Your task to perform on an android device: turn off javascript in the chrome app Image 0: 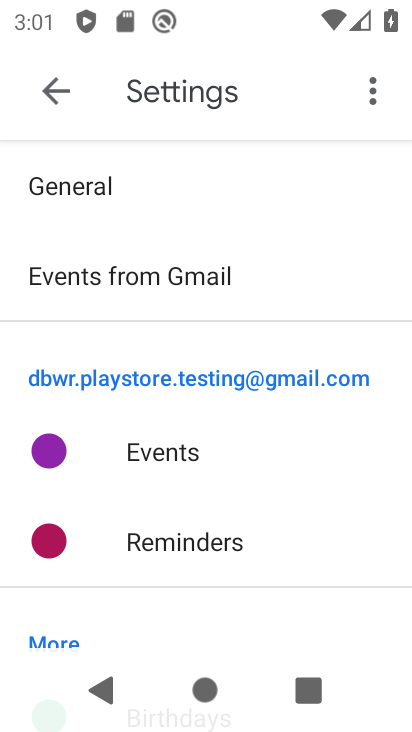
Step 0: press home button
Your task to perform on an android device: turn off javascript in the chrome app Image 1: 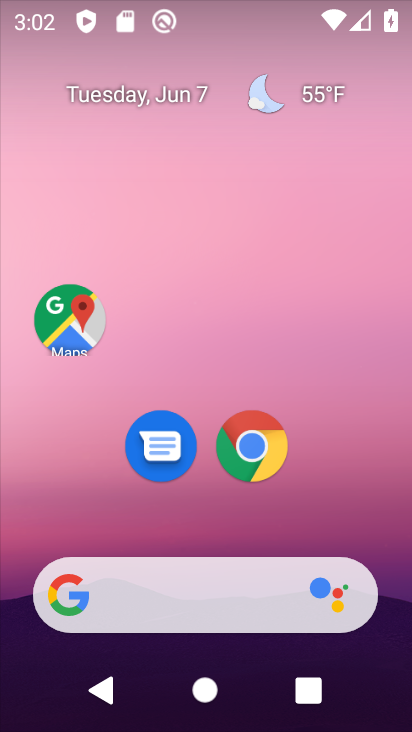
Step 1: click (276, 450)
Your task to perform on an android device: turn off javascript in the chrome app Image 2: 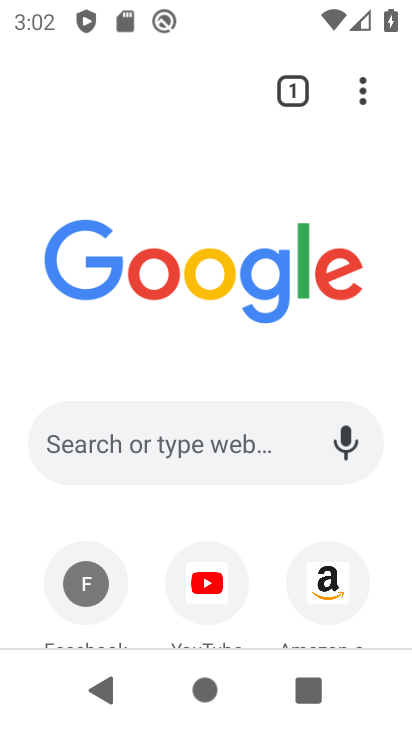
Step 2: click (353, 92)
Your task to perform on an android device: turn off javascript in the chrome app Image 3: 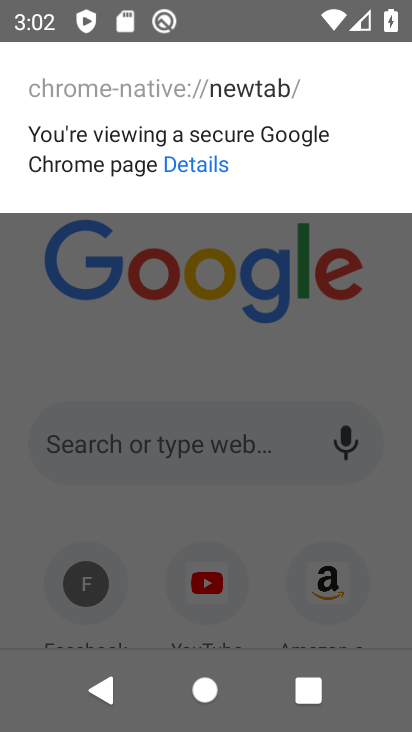
Step 3: click (130, 310)
Your task to perform on an android device: turn off javascript in the chrome app Image 4: 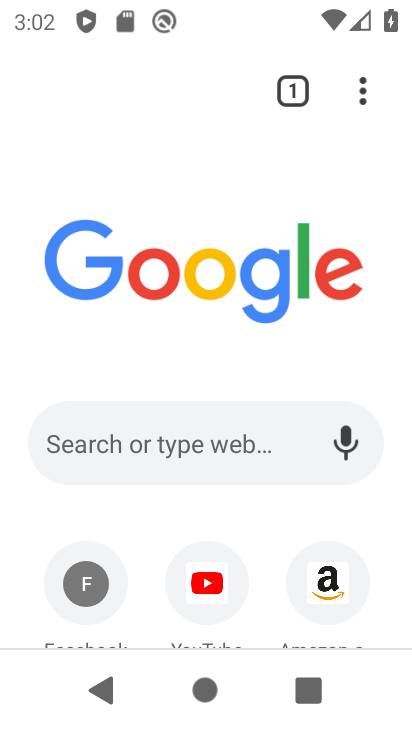
Step 4: drag from (357, 90) to (106, 494)
Your task to perform on an android device: turn off javascript in the chrome app Image 5: 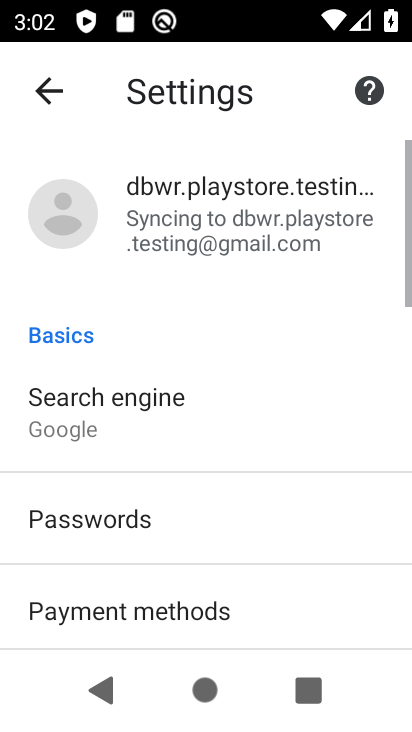
Step 5: drag from (98, 453) to (94, 314)
Your task to perform on an android device: turn off javascript in the chrome app Image 6: 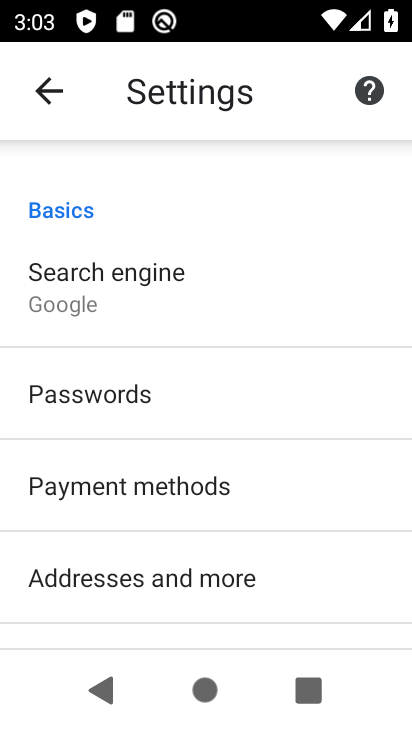
Step 6: drag from (168, 542) to (129, 109)
Your task to perform on an android device: turn off javascript in the chrome app Image 7: 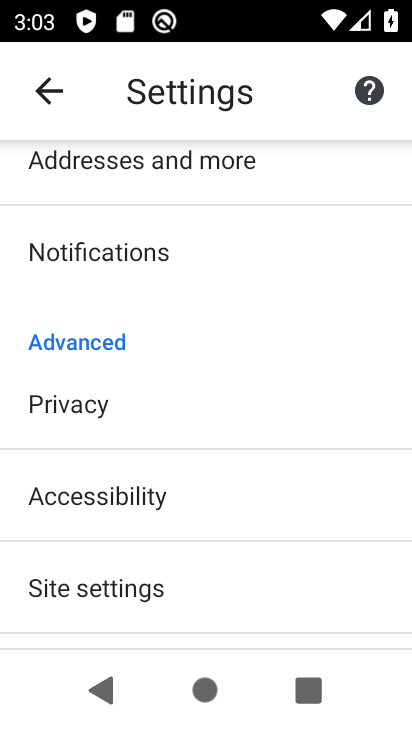
Step 7: click (146, 589)
Your task to perform on an android device: turn off javascript in the chrome app Image 8: 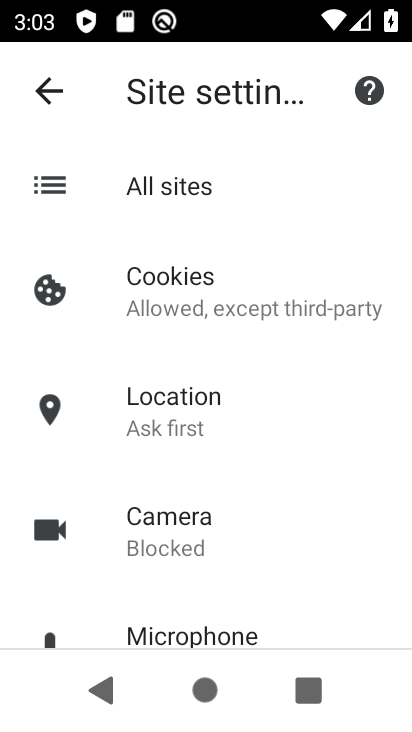
Step 8: drag from (206, 648) to (197, 177)
Your task to perform on an android device: turn off javascript in the chrome app Image 9: 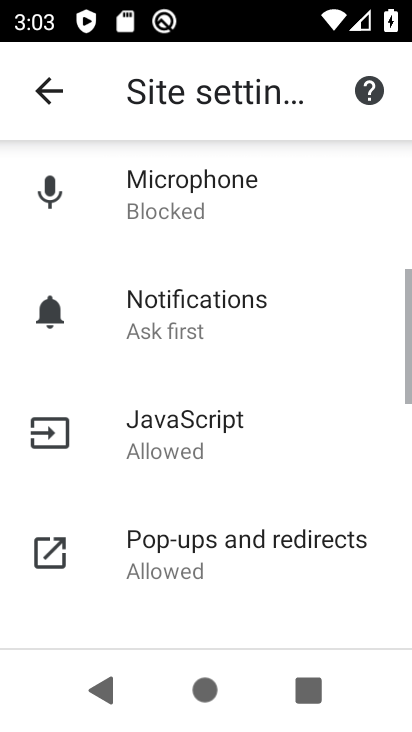
Step 9: click (193, 446)
Your task to perform on an android device: turn off javascript in the chrome app Image 10: 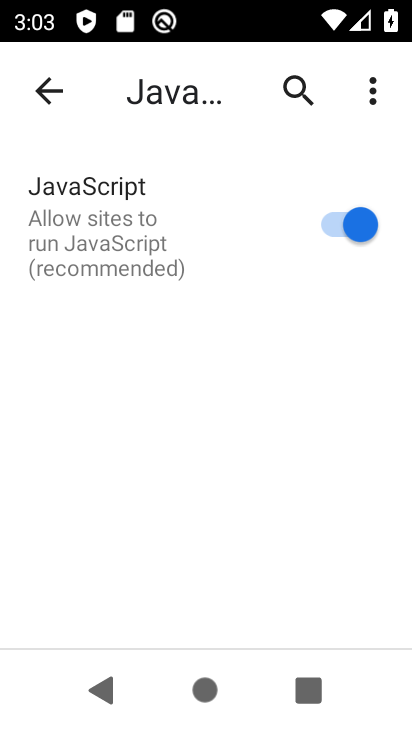
Step 10: click (367, 227)
Your task to perform on an android device: turn off javascript in the chrome app Image 11: 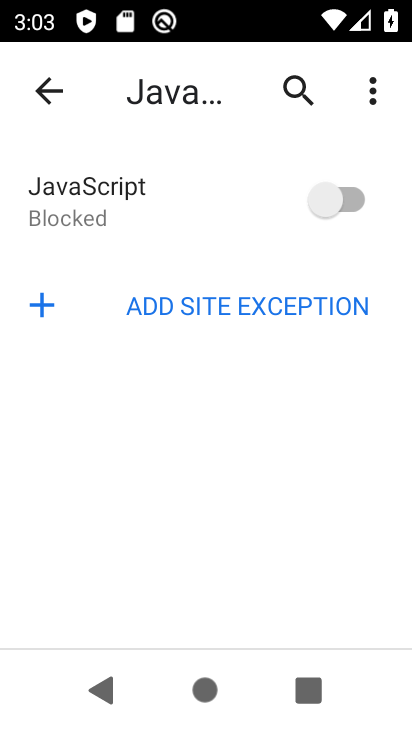
Step 11: task complete